Your task to perform on an android device: change your default location settings in chrome Image 0: 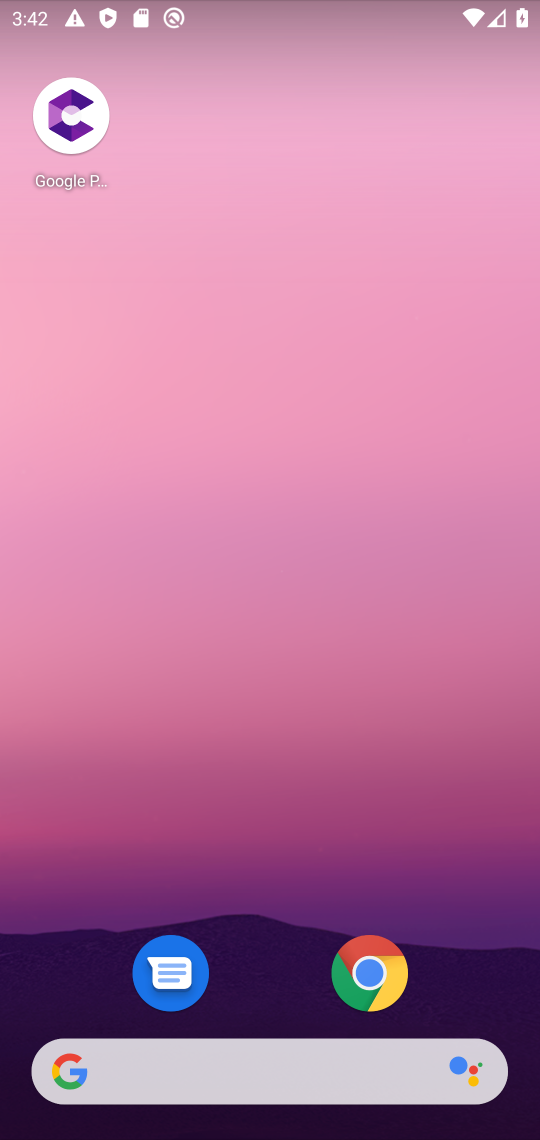
Step 0: drag from (301, 889) to (386, 161)
Your task to perform on an android device: change your default location settings in chrome Image 1: 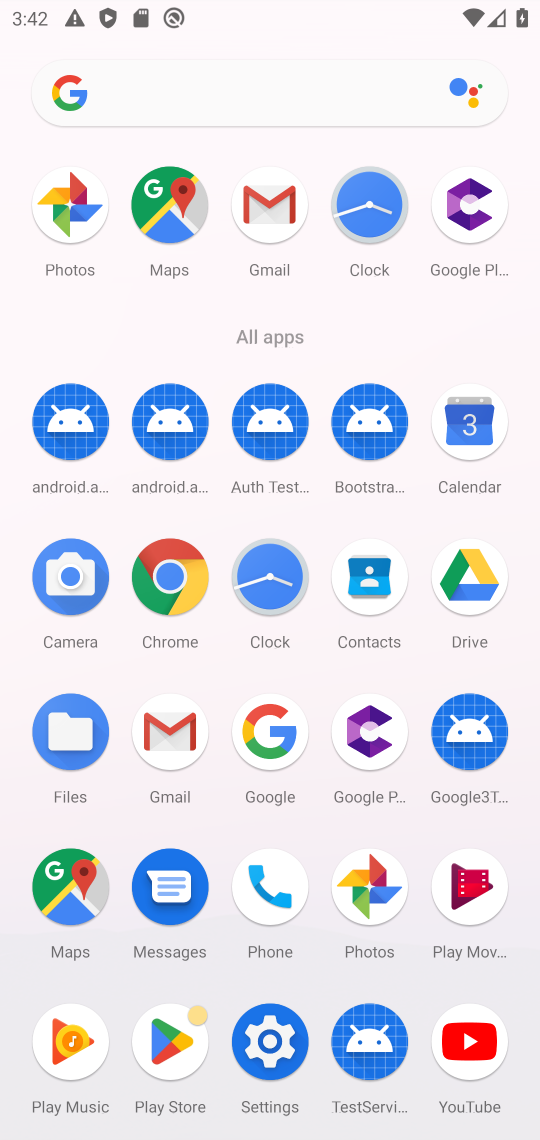
Step 1: click (170, 575)
Your task to perform on an android device: change your default location settings in chrome Image 2: 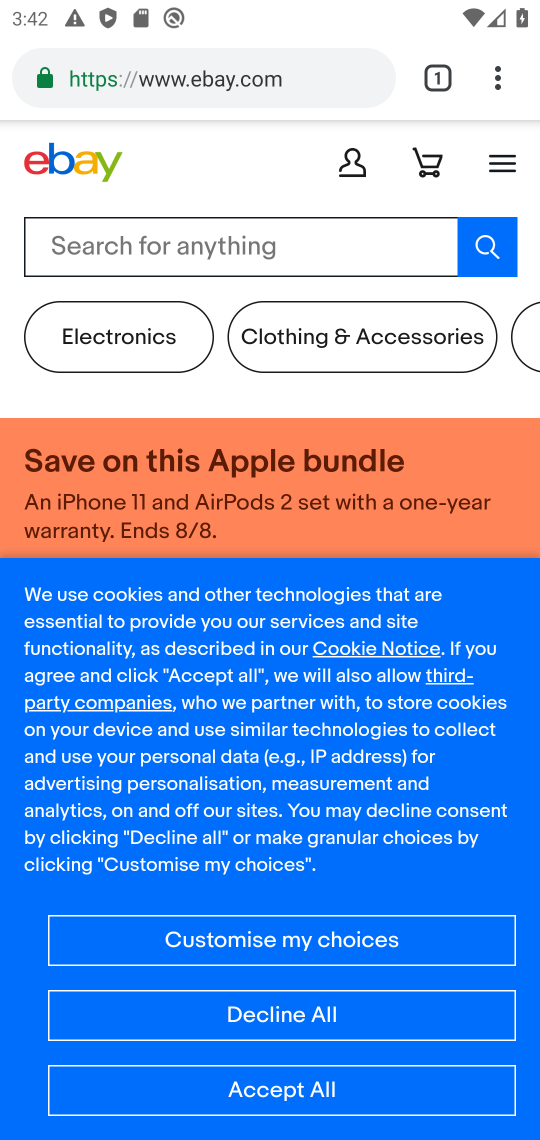
Step 2: click (496, 83)
Your task to perform on an android device: change your default location settings in chrome Image 3: 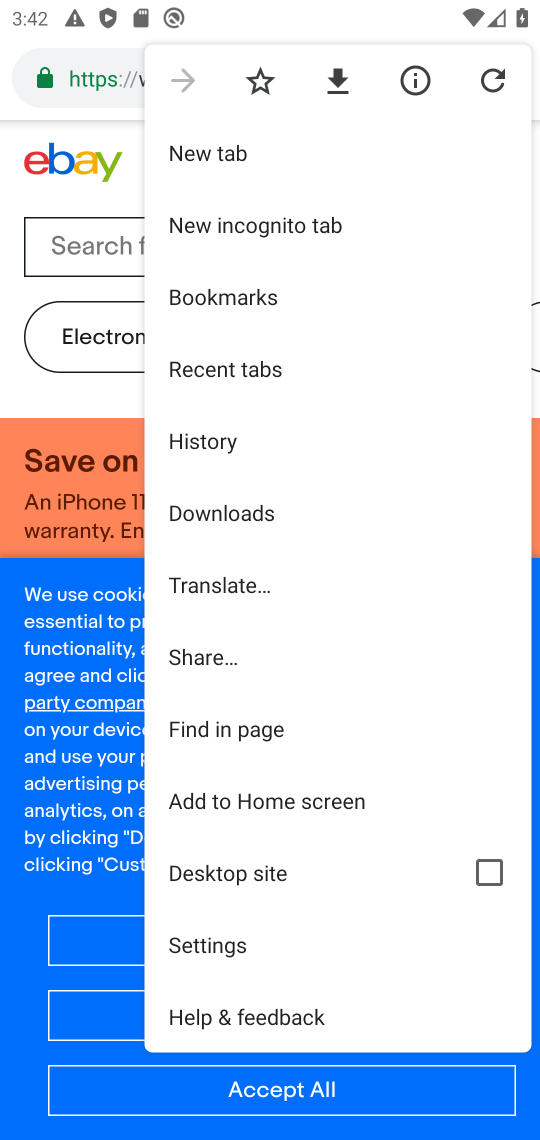
Step 3: click (211, 947)
Your task to perform on an android device: change your default location settings in chrome Image 4: 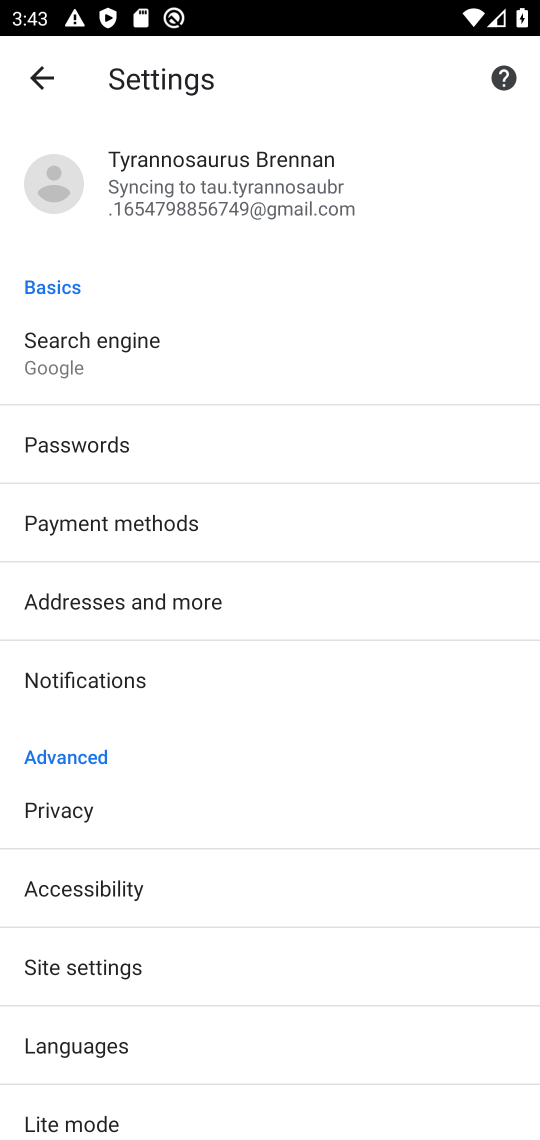
Step 4: click (125, 976)
Your task to perform on an android device: change your default location settings in chrome Image 5: 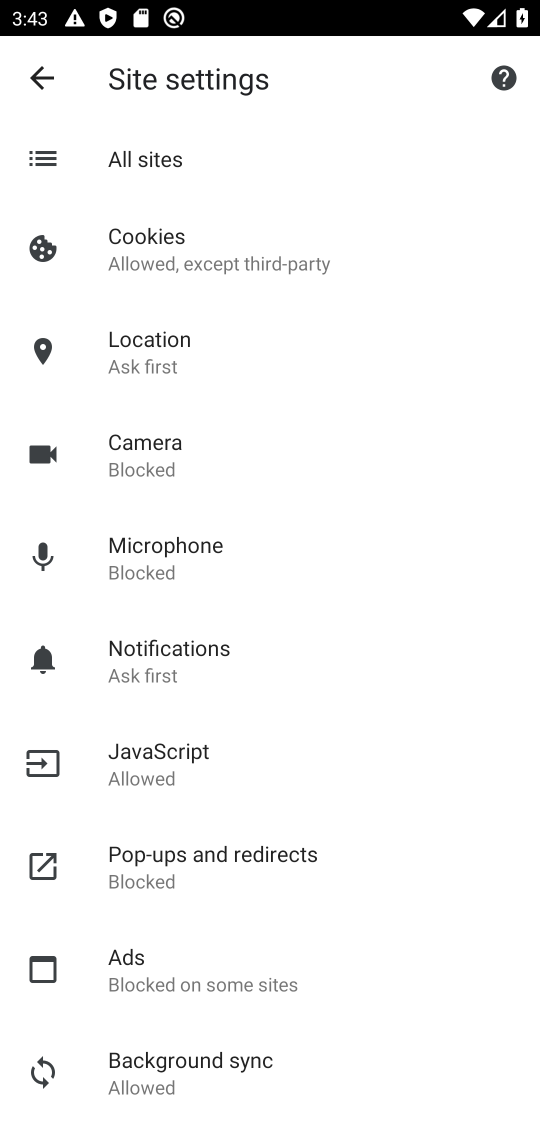
Step 5: click (154, 364)
Your task to perform on an android device: change your default location settings in chrome Image 6: 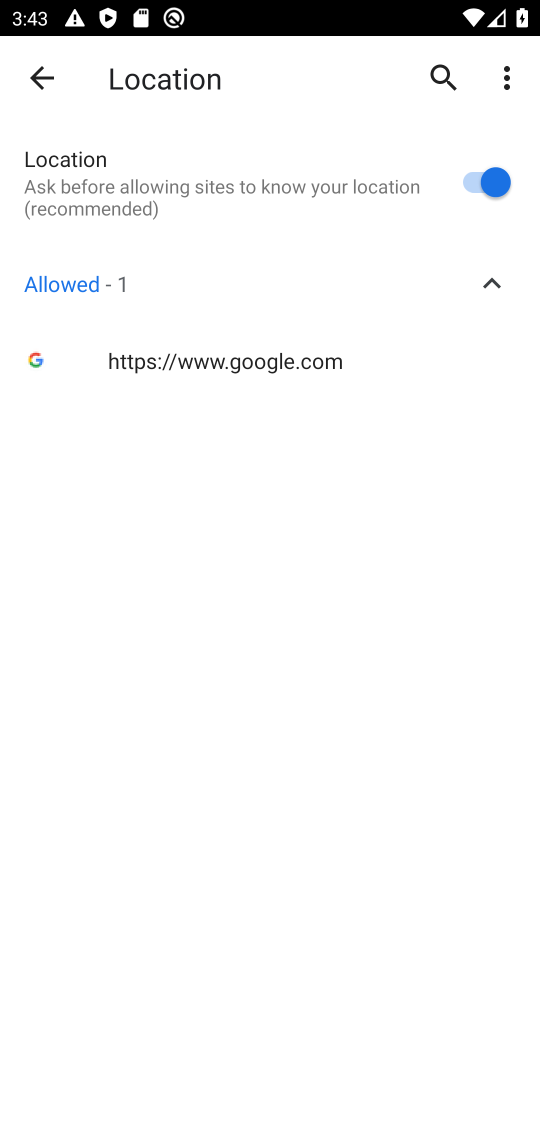
Step 6: click (466, 186)
Your task to perform on an android device: change your default location settings in chrome Image 7: 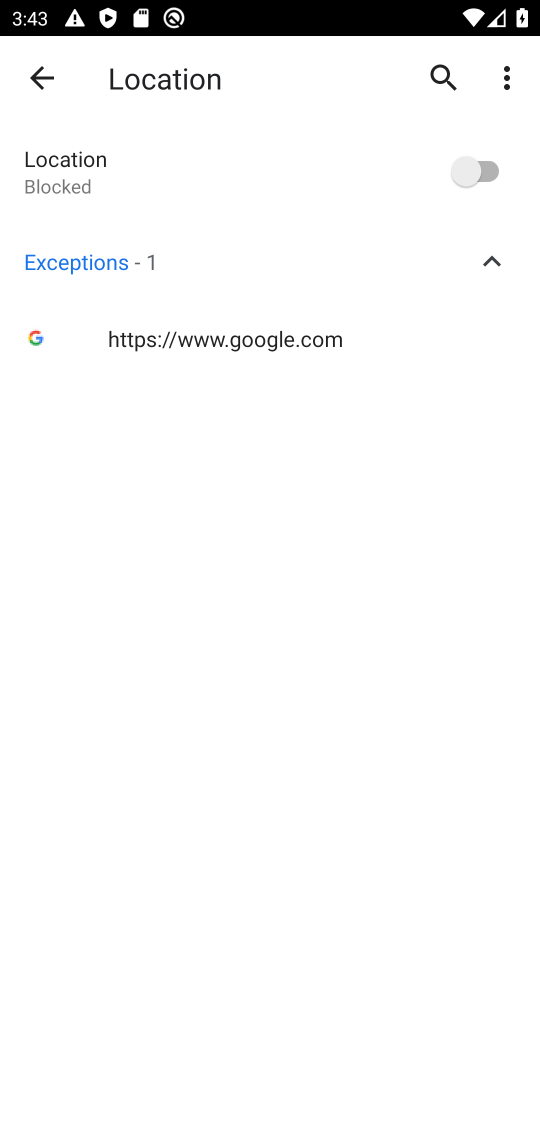
Step 7: task complete